Your task to perform on an android device: turn off notifications in google photos Image 0: 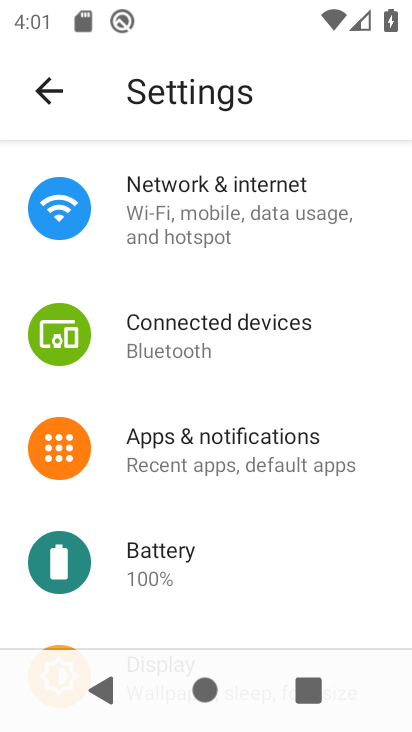
Step 0: press home button
Your task to perform on an android device: turn off notifications in google photos Image 1: 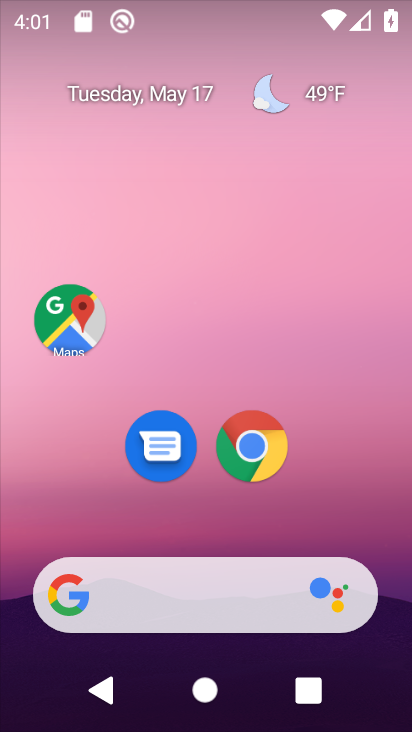
Step 1: drag from (68, 540) to (120, 152)
Your task to perform on an android device: turn off notifications in google photos Image 2: 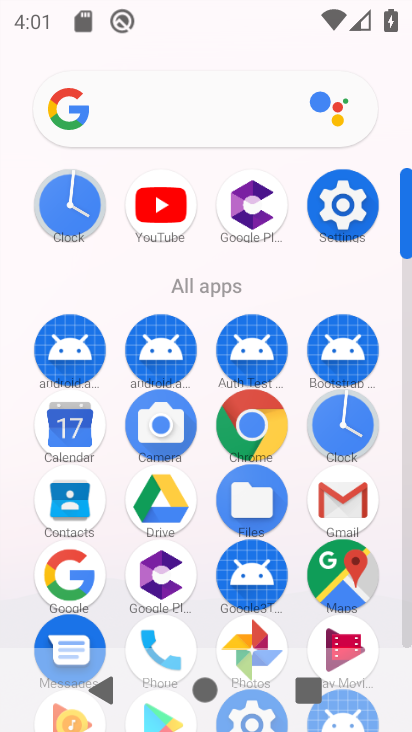
Step 2: drag from (146, 614) to (210, 383)
Your task to perform on an android device: turn off notifications in google photos Image 3: 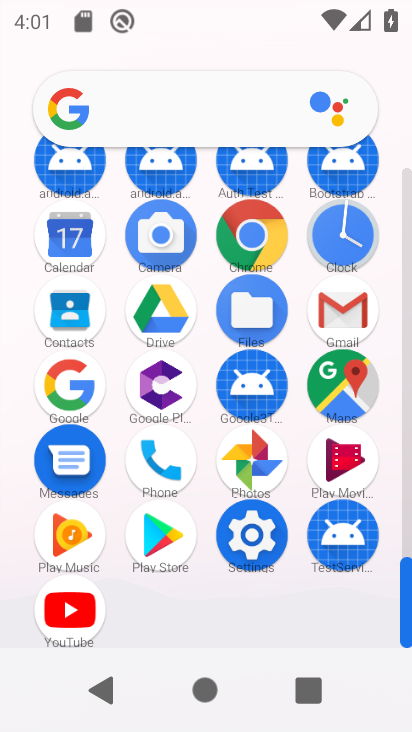
Step 3: click (274, 460)
Your task to perform on an android device: turn off notifications in google photos Image 4: 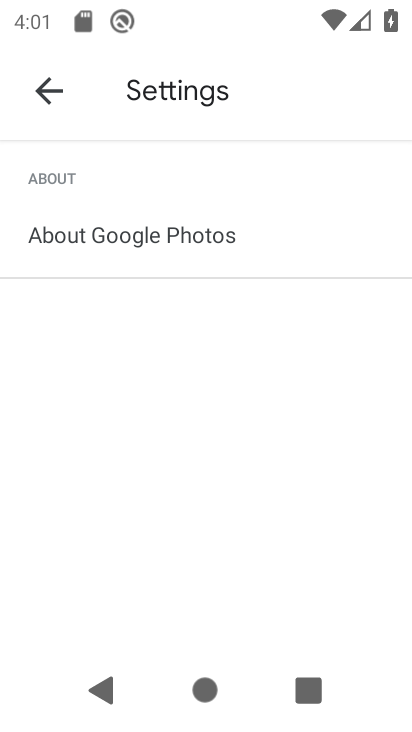
Step 4: click (69, 121)
Your task to perform on an android device: turn off notifications in google photos Image 5: 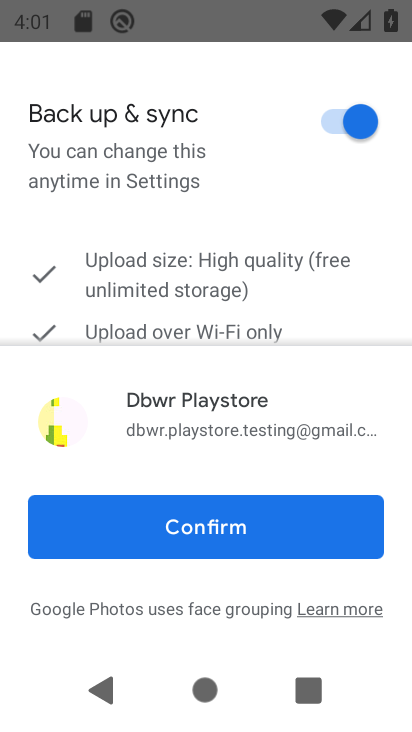
Step 5: click (308, 548)
Your task to perform on an android device: turn off notifications in google photos Image 6: 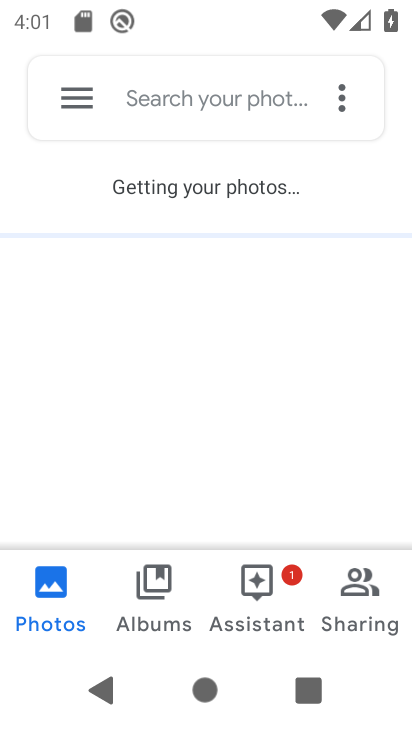
Step 6: click (88, 94)
Your task to perform on an android device: turn off notifications in google photos Image 7: 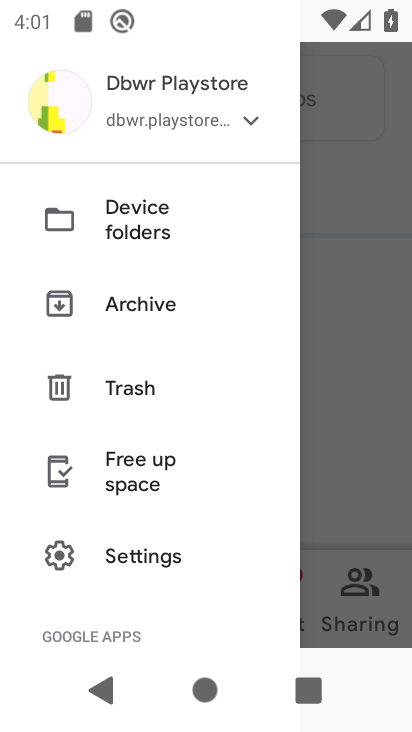
Step 7: drag from (86, 573) to (185, 272)
Your task to perform on an android device: turn off notifications in google photos Image 8: 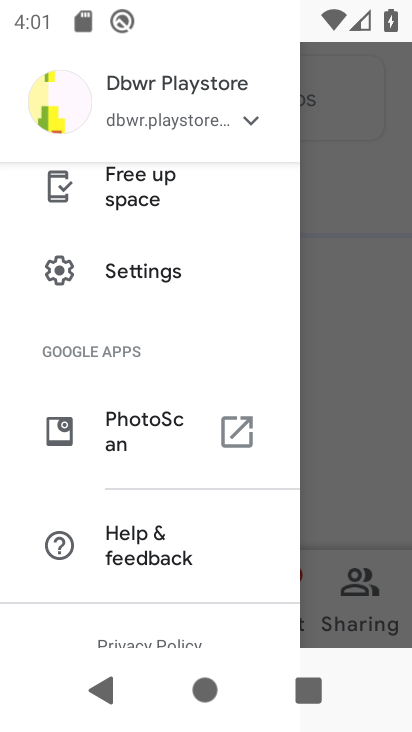
Step 8: click (171, 274)
Your task to perform on an android device: turn off notifications in google photos Image 9: 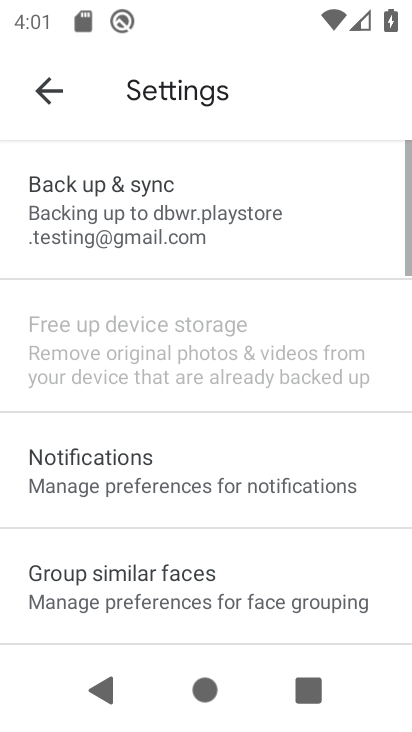
Step 9: drag from (187, 584) to (283, 478)
Your task to perform on an android device: turn off notifications in google photos Image 10: 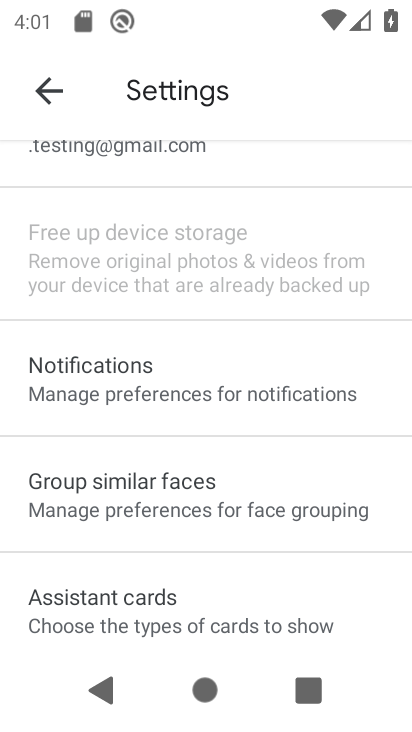
Step 10: drag from (250, 268) to (252, 474)
Your task to perform on an android device: turn off notifications in google photos Image 11: 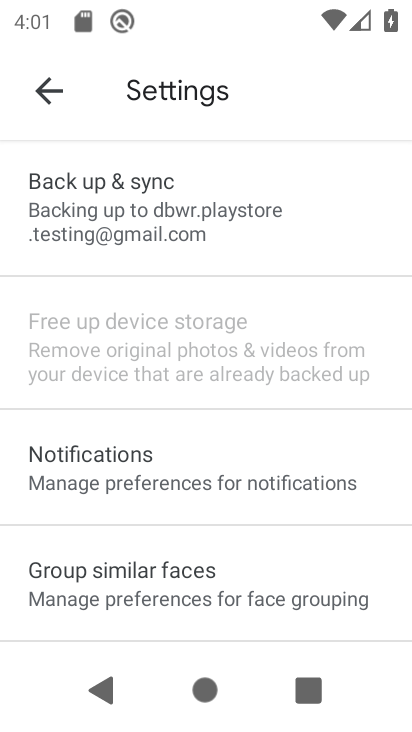
Step 11: drag from (135, 591) to (236, 257)
Your task to perform on an android device: turn off notifications in google photos Image 12: 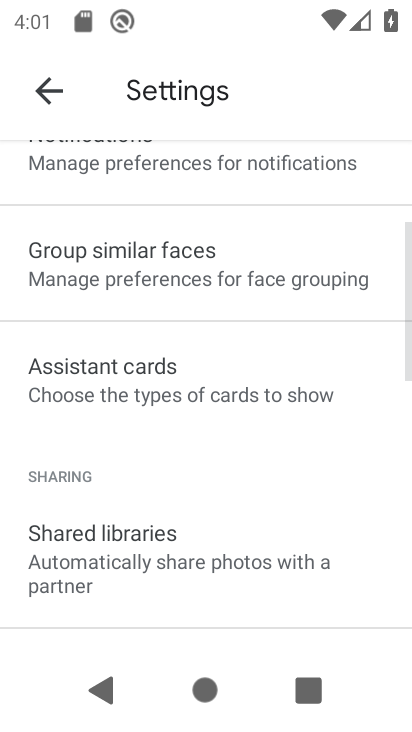
Step 12: drag from (172, 584) to (283, 188)
Your task to perform on an android device: turn off notifications in google photos Image 13: 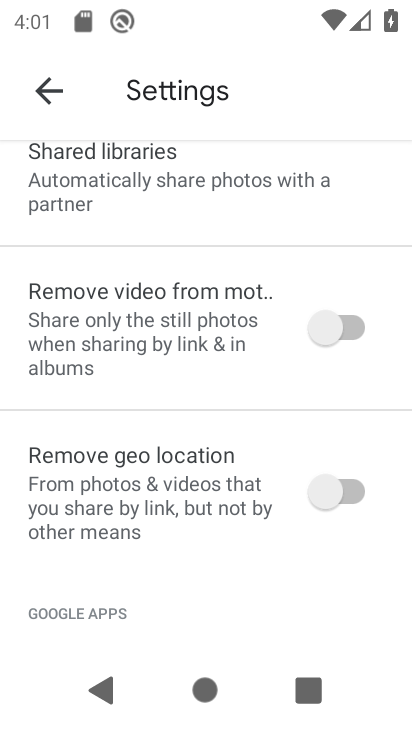
Step 13: drag from (219, 237) to (300, 137)
Your task to perform on an android device: turn off notifications in google photos Image 14: 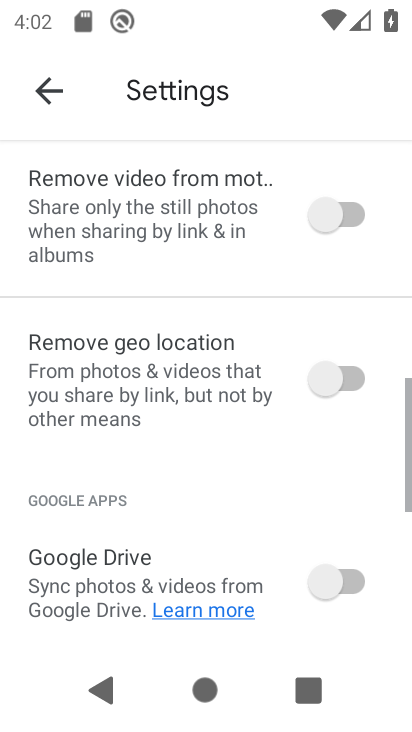
Step 14: drag from (182, 491) to (278, 93)
Your task to perform on an android device: turn off notifications in google photos Image 15: 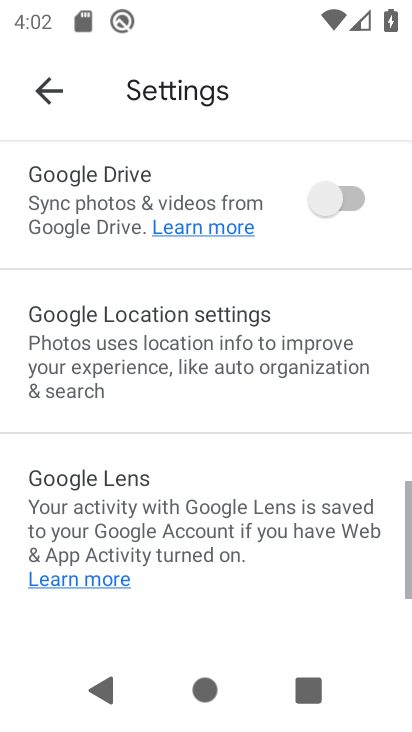
Step 15: drag from (189, 223) to (153, 581)
Your task to perform on an android device: turn off notifications in google photos Image 16: 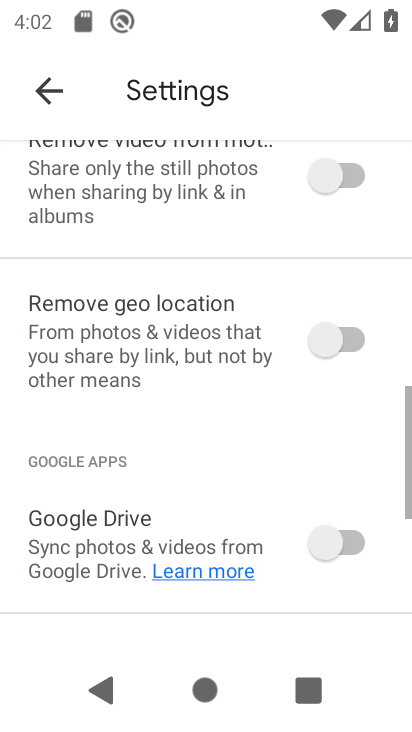
Step 16: drag from (144, 206) to (89, 584)
Your task to perform on an android device: turn off notifications in google photos Image 17: 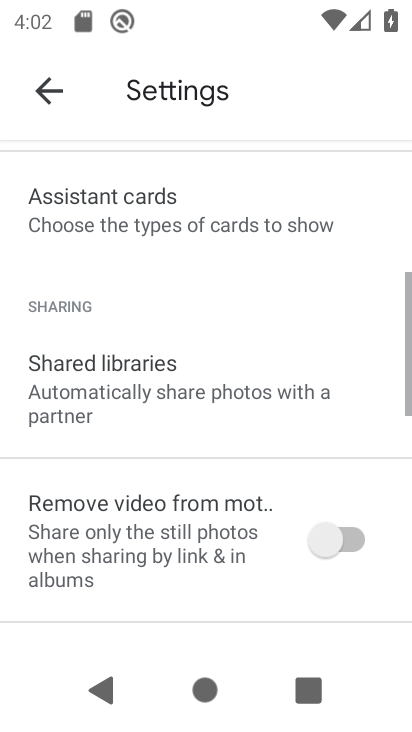
Step 17: drag from (89, 221) to (26, 511)
Your task to perform on an android device: turn off notifications in google photos Image 18: 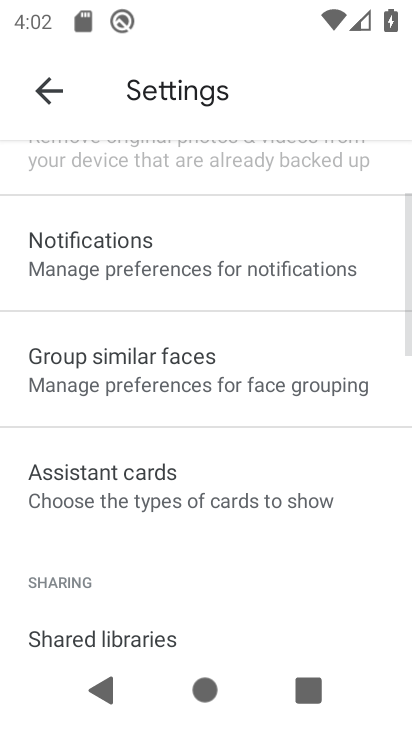
Step 18: click (97, 269)
Your task to perform on an android device: turn off notifications in google photos Image 19: 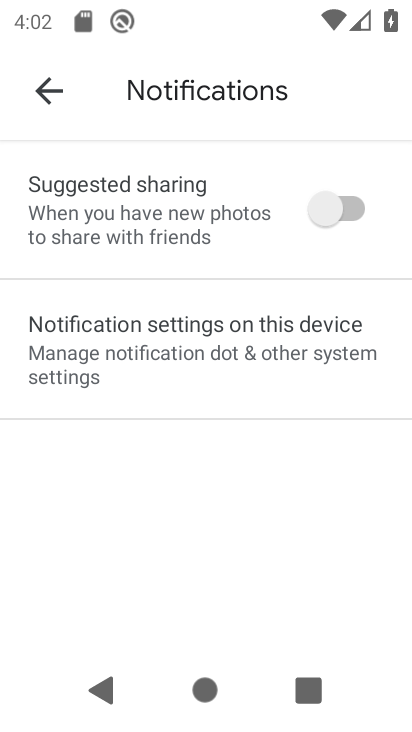
Step 19: click (238, 327)
Your task to perform on an android device: turn off notifications in google photos Image 20: 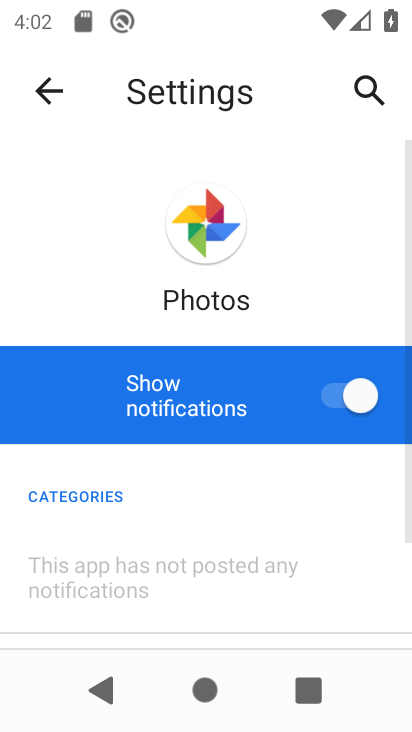
Step 20: click (325, 396)
Your task to perform on an android device: turn off notifications in google photos Image 21: 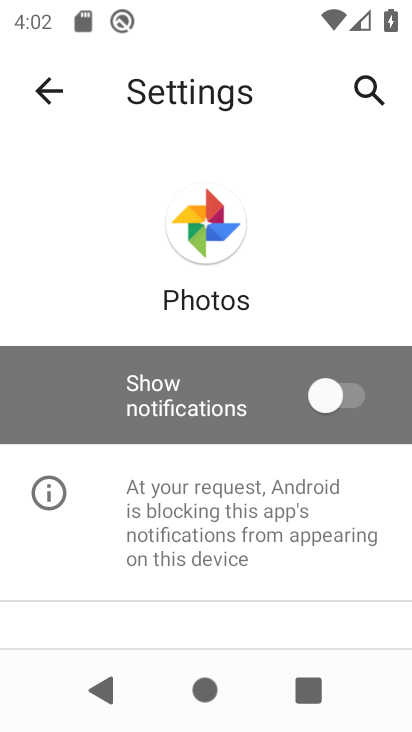
Step 21: task complete